Your task to perform on an android device: turn on the 12-hour format for clock Image 0: 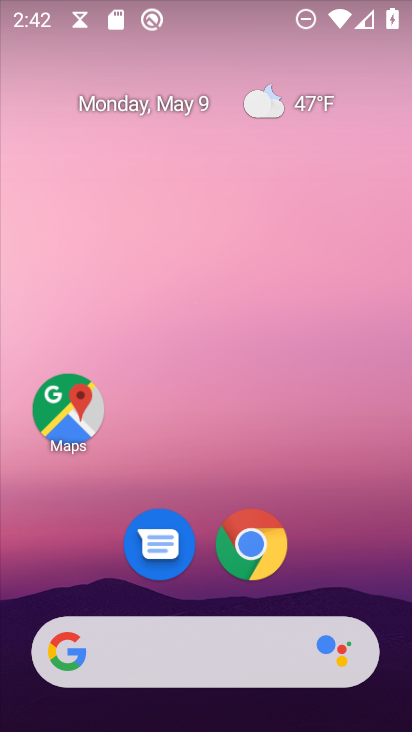
Step 0: click (349, 178)
Your task to perform on an android device: turn on the 12-hour format for clock Image 1: 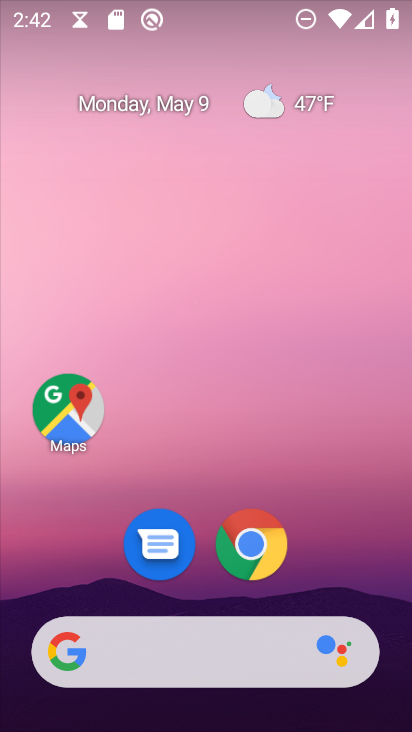
Step 1: drag from (395, 539) to (395, 224)
Your task to perform on an android device: turn on the 12-hour format for clock Image 2: 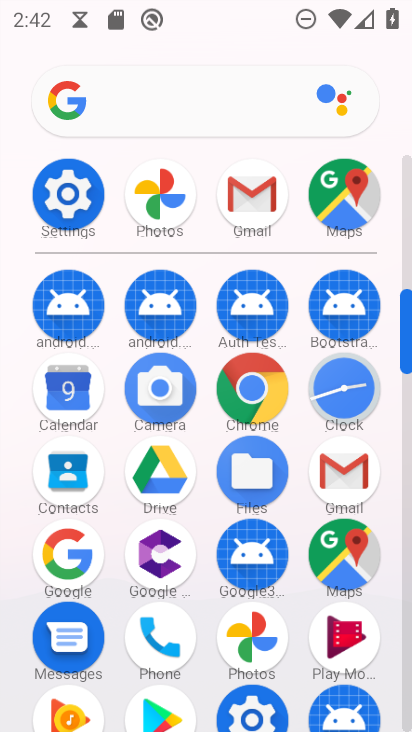
Step 2: click (357, 403)
Your task to perform on an android device: turn on the 12-hour format for clock Image 3: 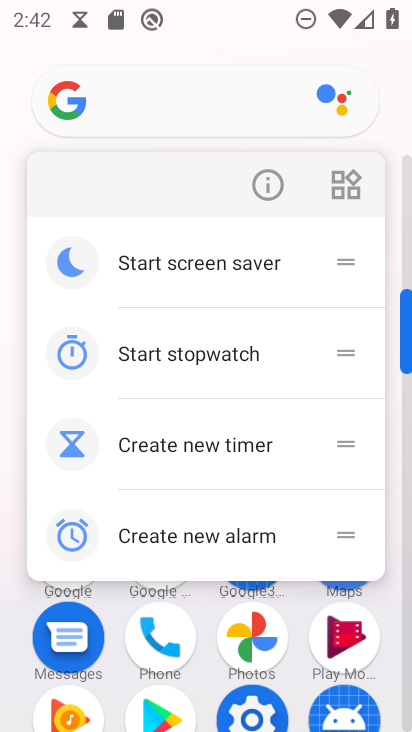
Step 3: press back button
Your task to perform on an android device: turn on the 12-hour format for clock Image 4: 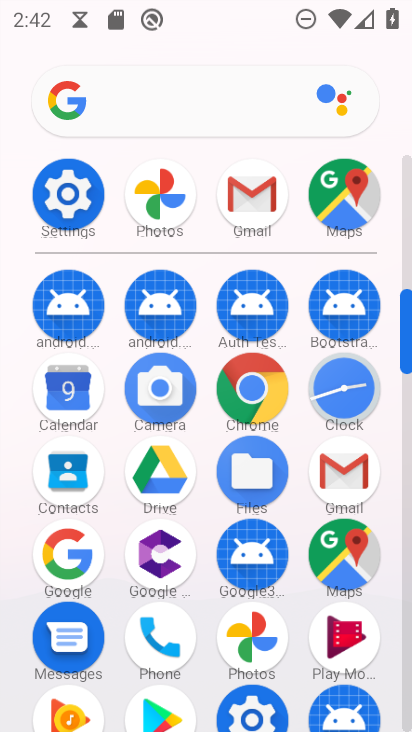
Step 4: click (348, 393)
Your task to perform on an android device: turn on the 12-hour format for clock Image 5: 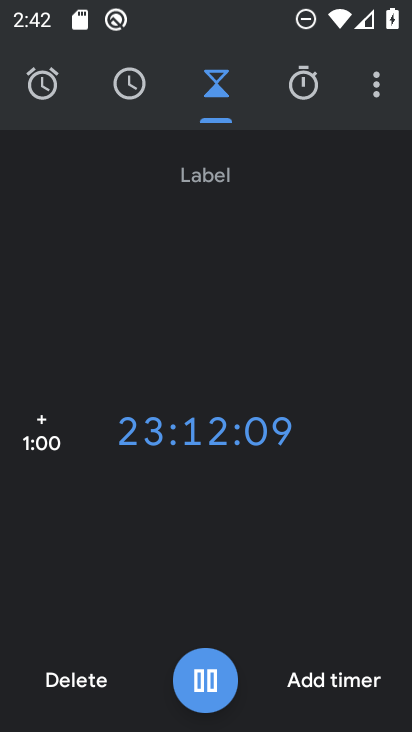
Step 5: click (386, 95)
Your task to perform on an android device: turn on the 12-hour format for clock Image 6: 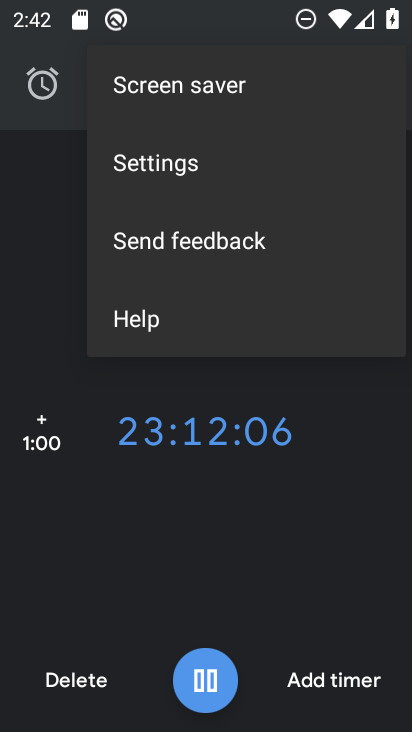
Step 6: click (186, 170)
Your task to perform on an android device: turn on the 12-hour format for clock Image 7: 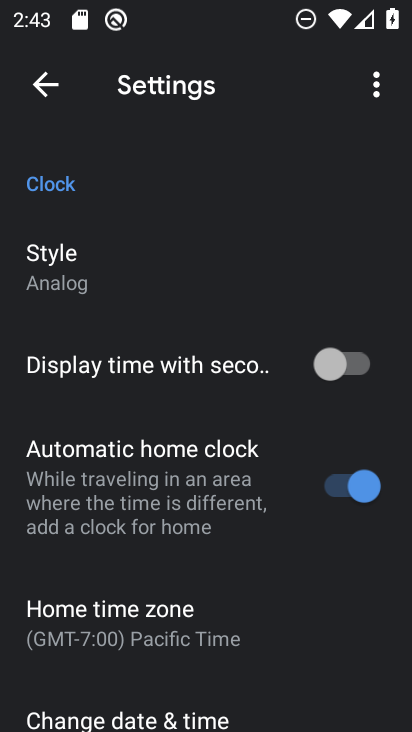
Step 7: drag from (151, 536) to (230, 217)
Your task to perform on an android device: turn on the 12-hour format for clock Image 8: 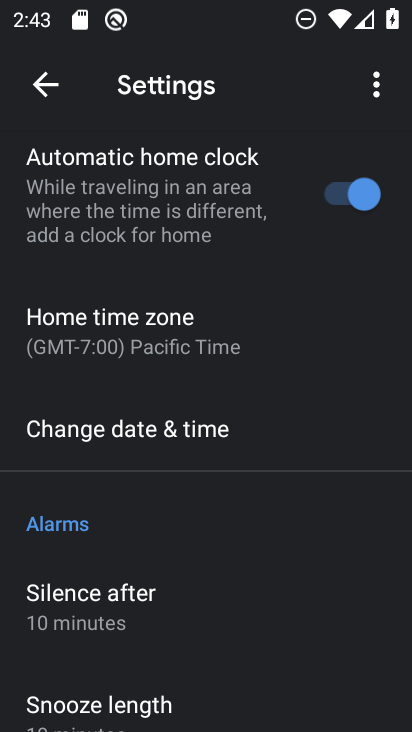
Step 8: click (143, 436)
Your task to perform on an android device: turn on the 12-hour format for clock Image 9: 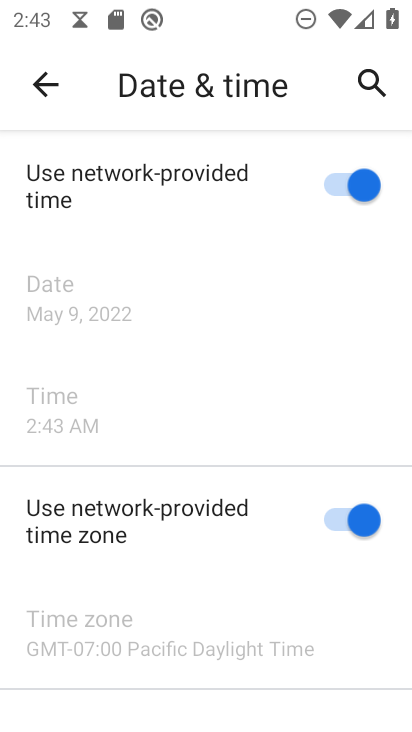
Step 9: drag from (160, 601) to (188, 327)
Your task to perform on an android device: turn on the 12-hour format for clock Image 10: 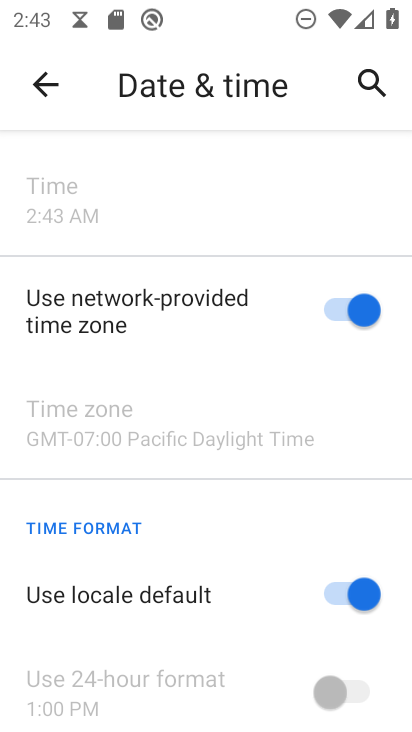
Step 10: drag from (140, 627) to (211, 276)
Your task to perform on an android device: turn on the 12-hour format for clock Image 11: 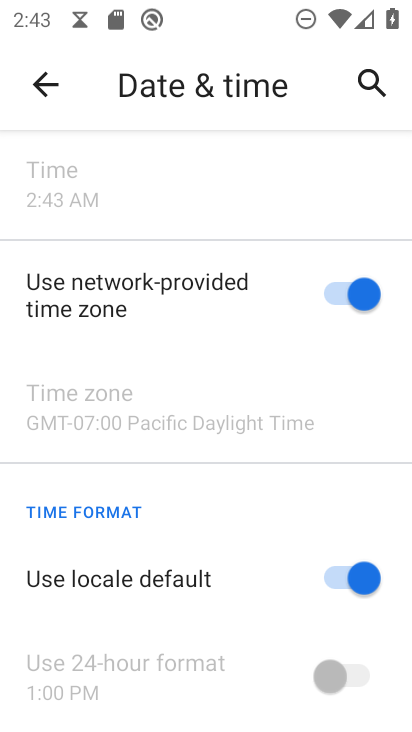
Step 11: drag from (177, 567) to (233, 316)
Your task to perform on an android device: turn on the 12-hour format for clock Image 12: 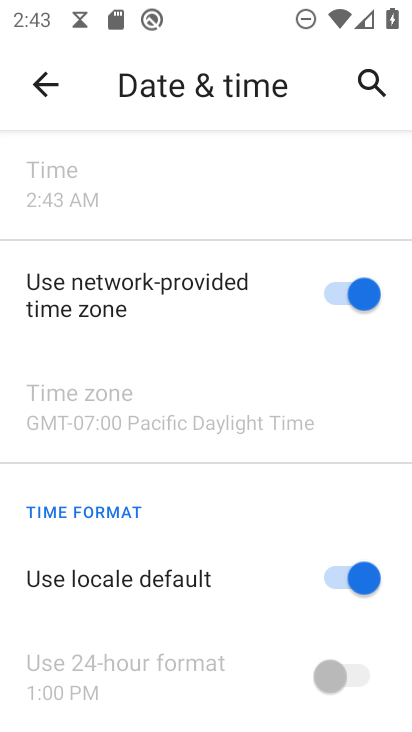
Step 12: click (360, 582)
Your task to perform on an android device: turn on the 12-hour format for clock Image 13: 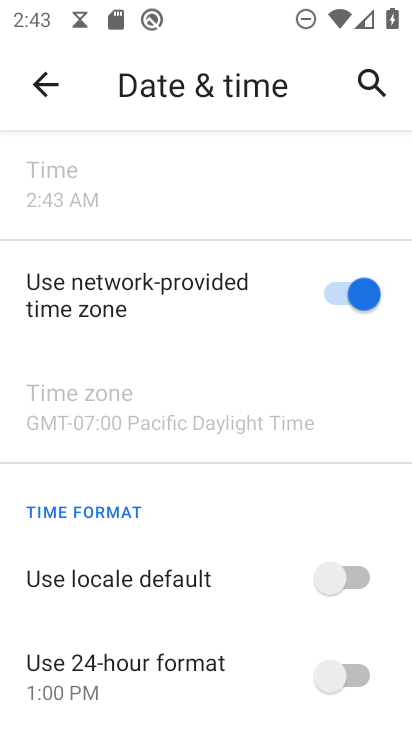
Step 13: task complete